Your task to perform on an android device: toggle improve location accuracy Image 0: 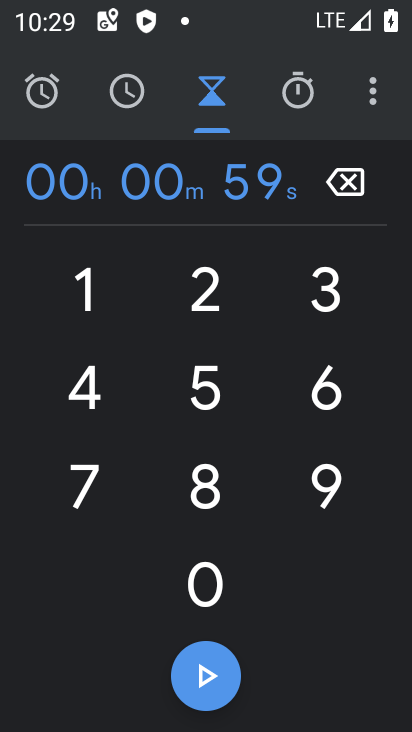
Step 0: press home button
Your task to perform on an android device: toggle improve location accuracy Image 1: 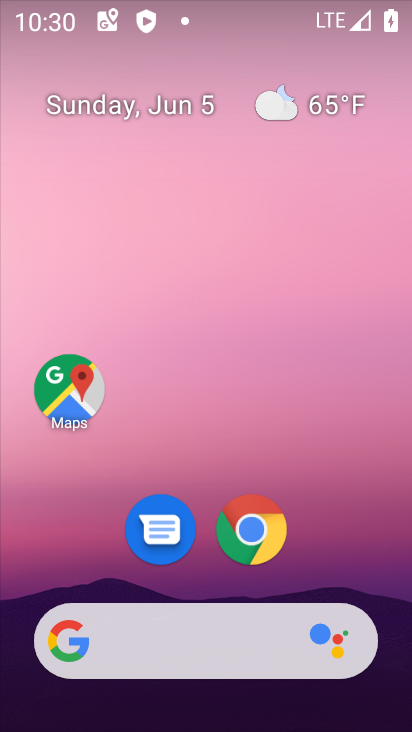
Step 1: click (88, 410)
Your task to perform on an android device: toggle improve location accuracy Image 2: 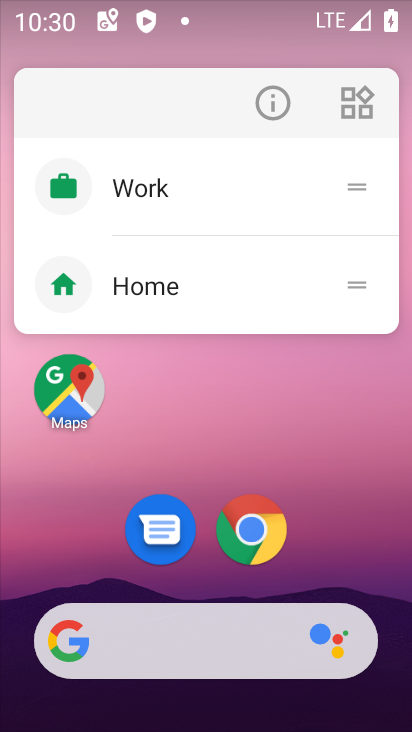
Step 2: click (88, 410)
Your task to perform on an android device: toggle improve location accuracy Image 3: 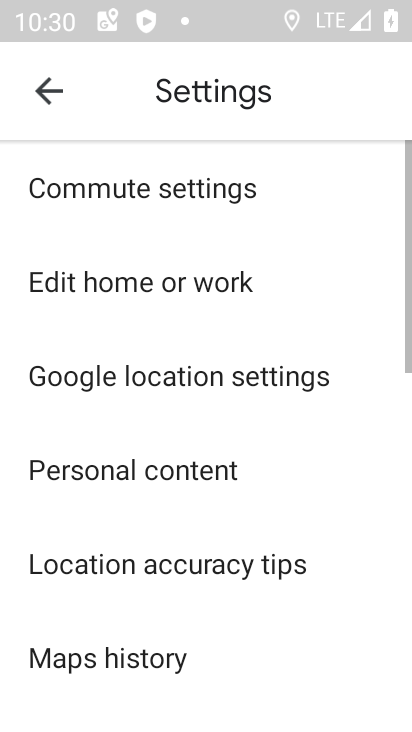
Step 3: click (189, 385)
Your task to perform on an android device: toggle improve location accuracy Image 4: 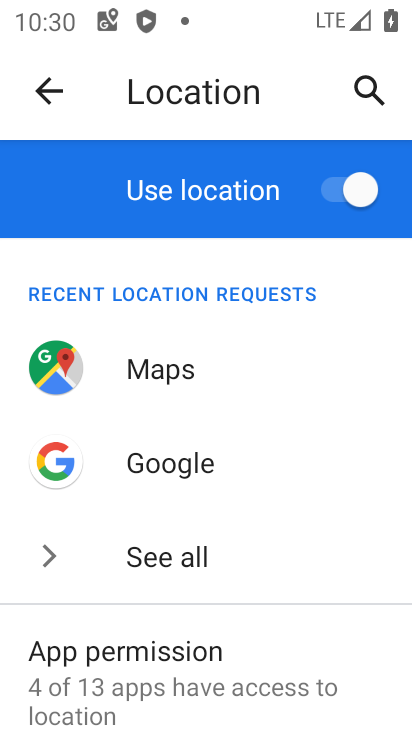
Step 4: drag from (175, 611) to (298, 82)
Your task to perform on an android device: toggle improve location accuracy Image 5: 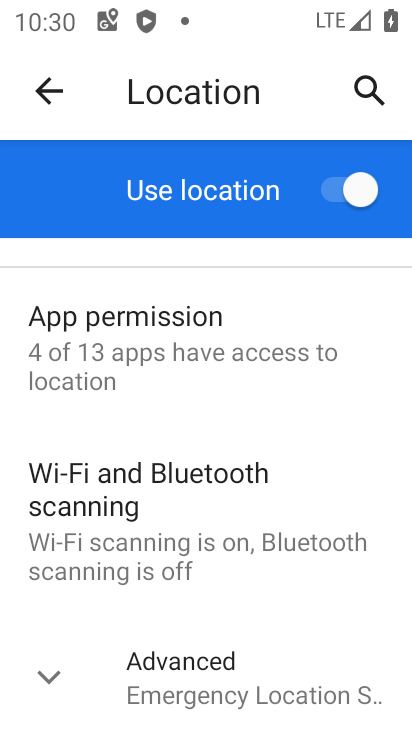
Step 5: click (266, 678)
Your task to perform on an android device: toggle improve location accuracy Image 6: 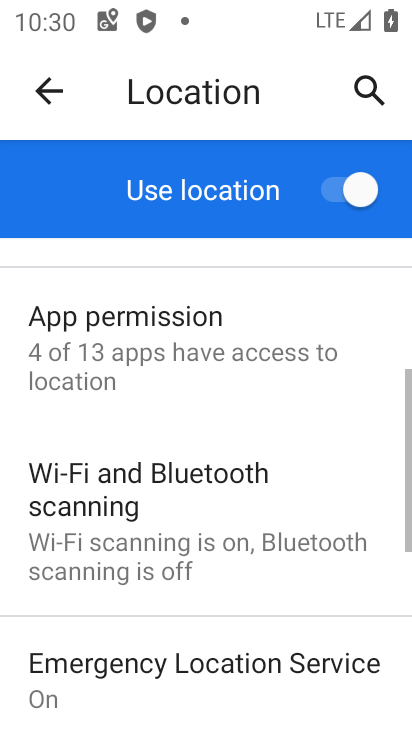
Step 6: drag from (289, 649) to (287, 42)
Your task to perform on an android device: toggle improve location accuracy Image 7: 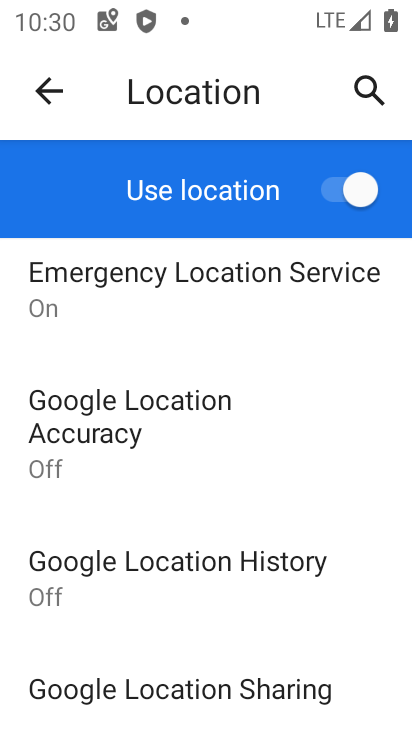
Step 7: click (111, 436)
Your task to perform on an android device: toggle improve location accuracy Image 8: 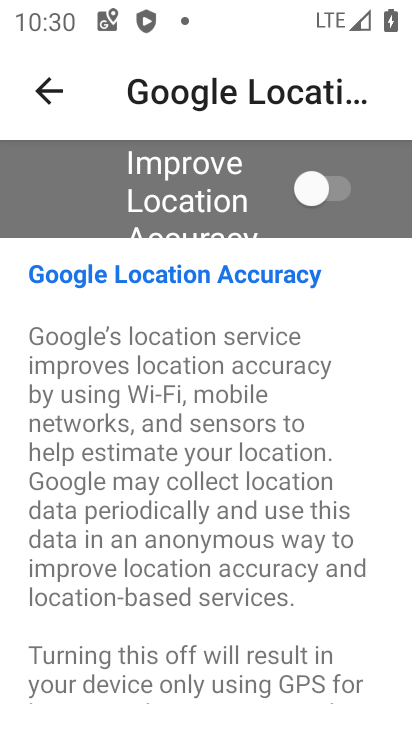
Step 8: click (323, 201)
Your task to perform on an android device: toggle improve location accuracy Image 9: 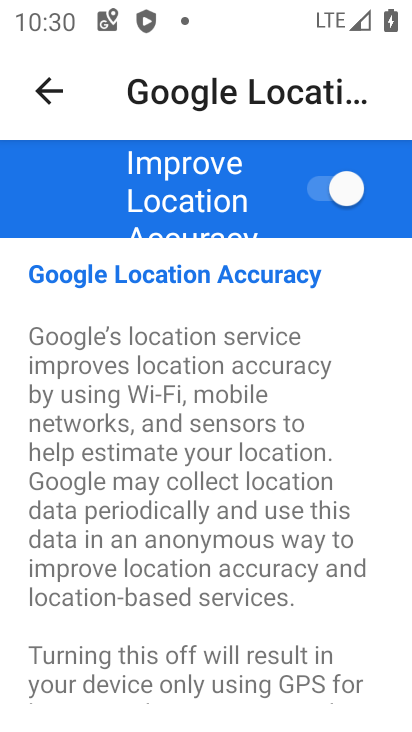
Step 9: task complete